Your task to perform on an android device: Open wifi settings Image 0: 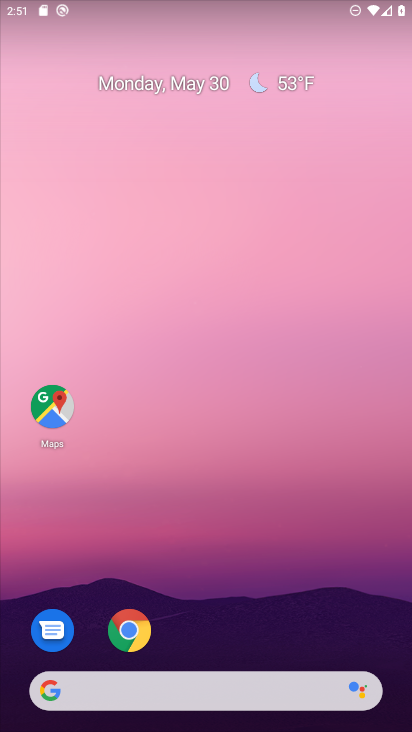
Step 0: click (44, 406)
Your task to perform on an android device: Open wifi settings Image 1: 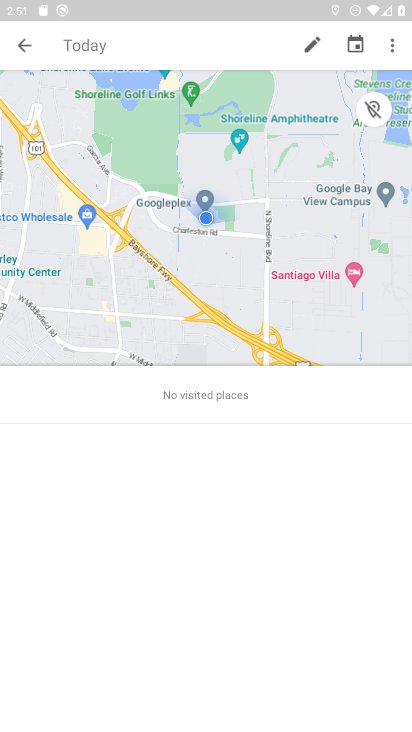
Step 1: press home button
Your task to perform on an android device: Open wifi settings Image 2: 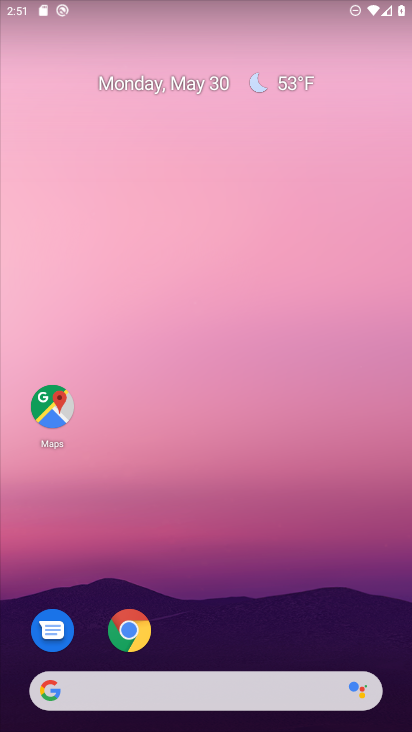
Step 2: drag from (216, 671) to (237, 134)
Your task to perform on an android device: Open wifi settings Image 3: 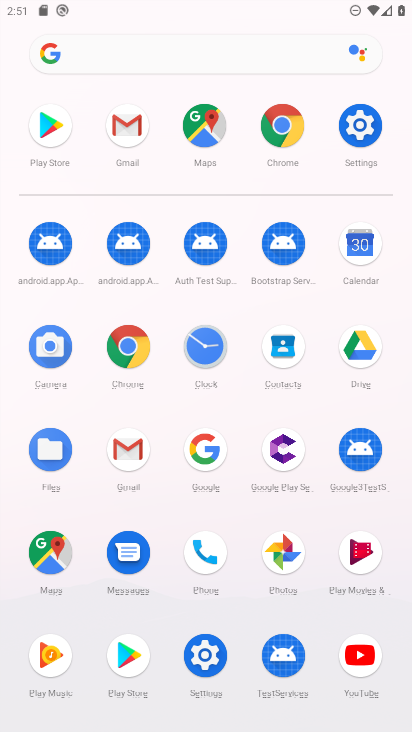
Step 3: click (375, 123)
Your task to perform on an android device: Open wifi settings Image 4: 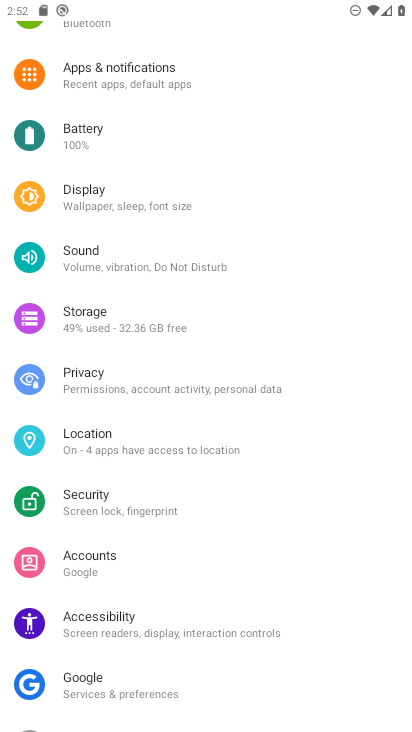
Step 4: drag from (154, 110) to (171, 608)
Your task to perform on an android device: Open wifi settings Image 5: 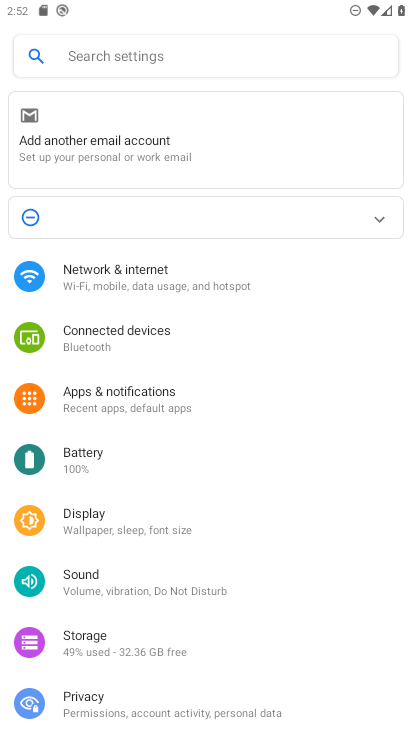
Step 5: click (155, 279)
Your task to perform on an android device: Open wifi settings Image 6: 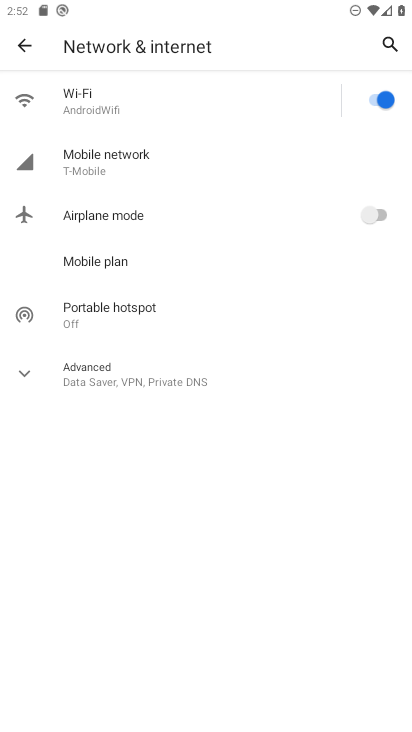
Step 6: click (97, 106)
Your task to perform on an android device: Open wifi settings Image 7: 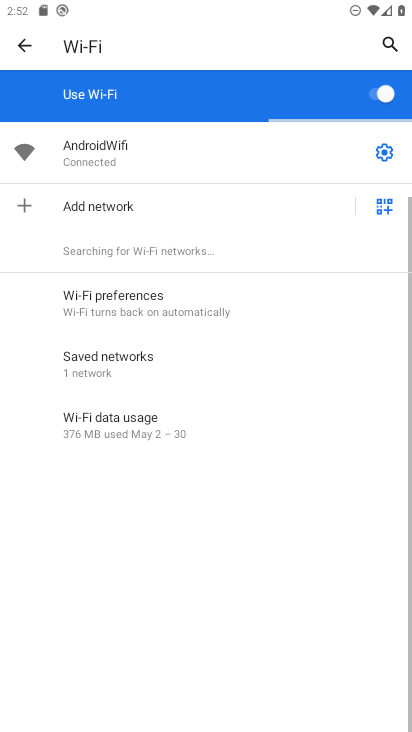
Step 7: task complete